Your task to perform on an android device: turn on the 24-hour format for clock Image 0: 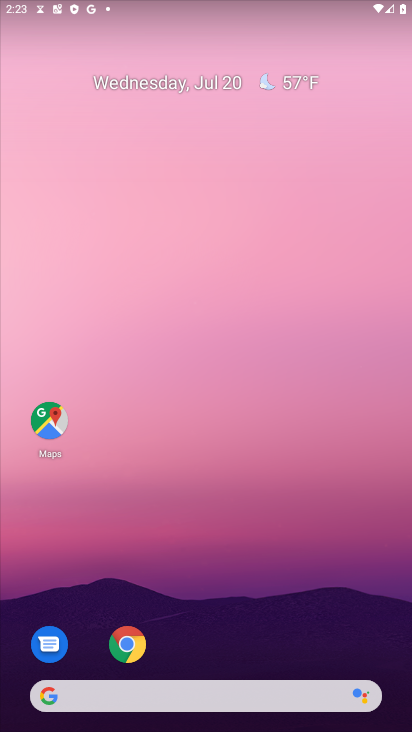
Step 0: press home button
Your task to perform on an android device: turn on the 24-hour format for clock Image 1: 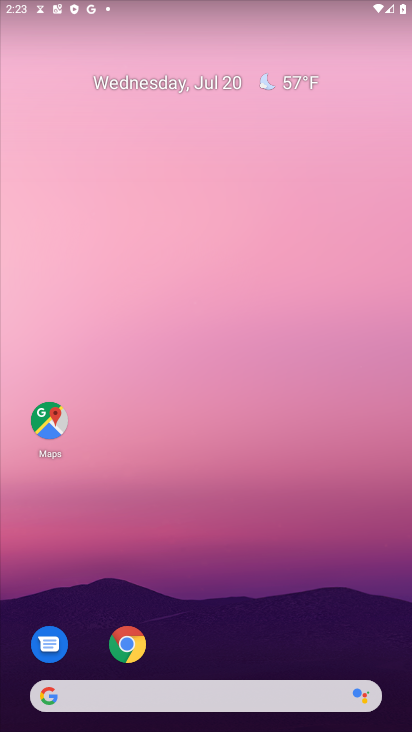
Step 1: drag from (256, 647) to (217, 0)
Your task to perform on an android device: turn on the 24-hour format for clock Image 2: 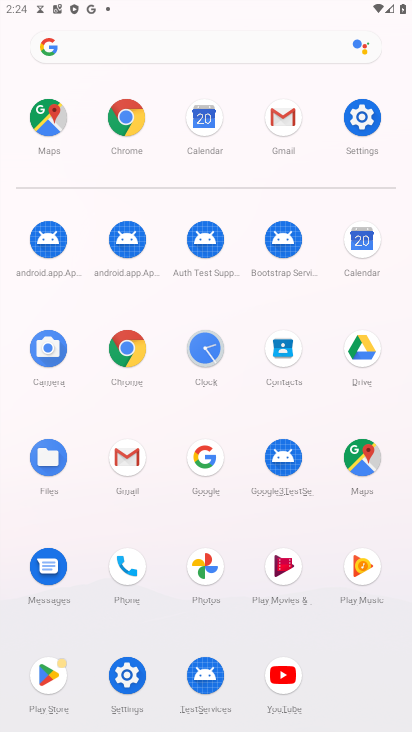
Step 2: click (356, 120)
Your task to perform on an android device: turn on the 24-hour format for clock Image 3: 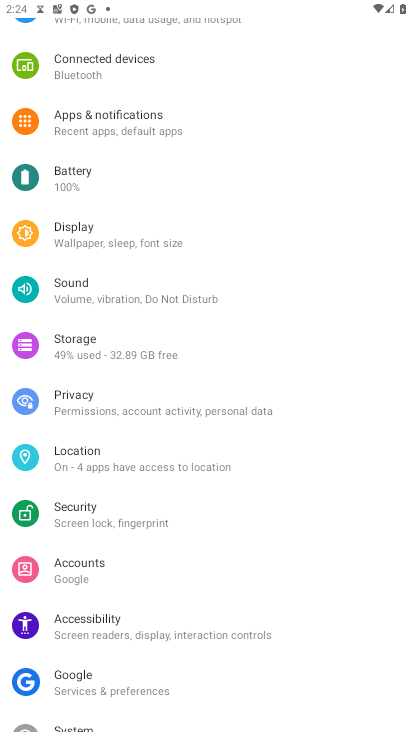
Step 3: drag from (259, 626) to (277, 100)
Your task to perform on an android device: turn on the 24-hour format for clock Image 4: 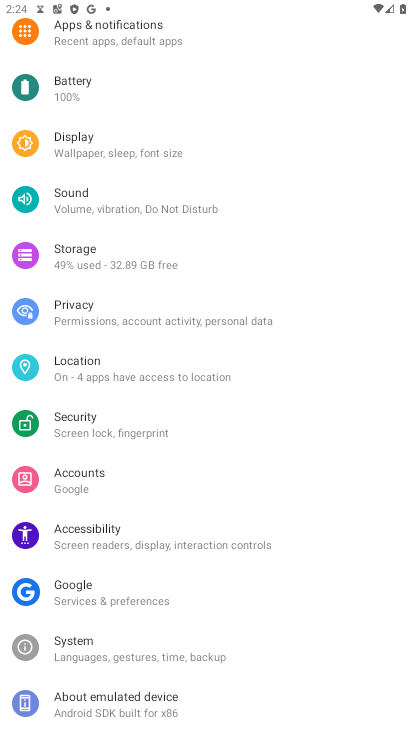
Step 4: click (59, 651)
Your task to perform on an android device: turn on the 24-hour format for clock Image 5: 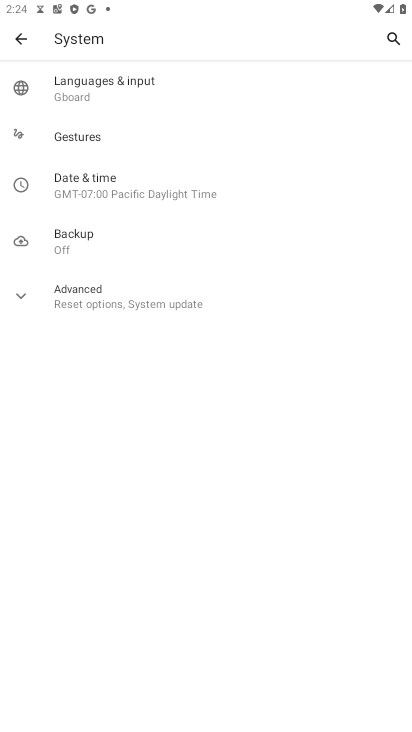
Step 5: click (87, 181)
Your task to perform on an android device: turn on the 24-hour format for clock Image 6: 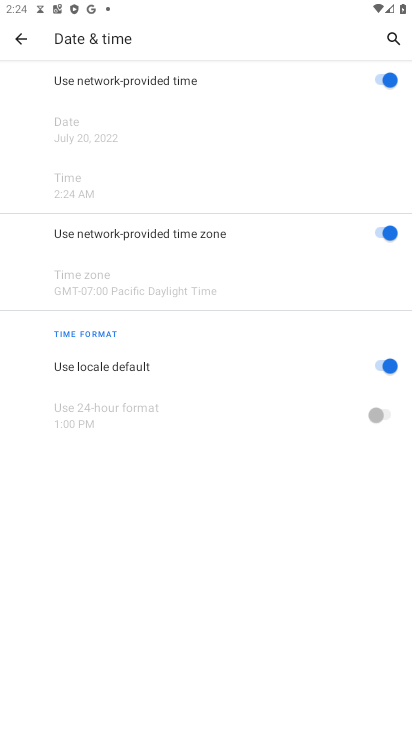
Step 6: click (378, 415)
Your task to perform on an android device: turn on the 24-hour format for clock Image 7: 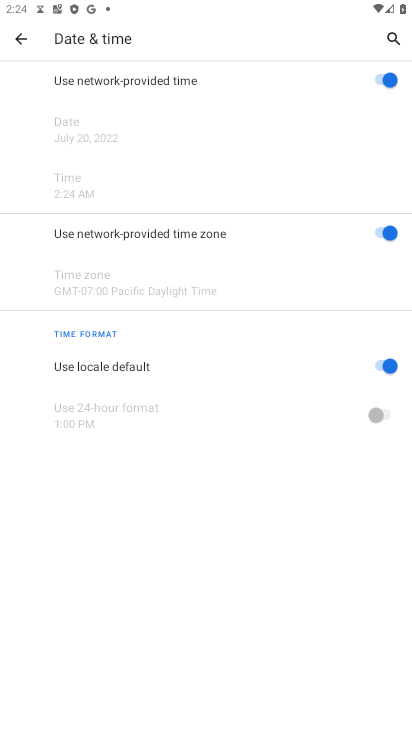
Step 7: click (393, 370)
Your task to perform on an android device: turn on the 24-hour format for clock Image 8: 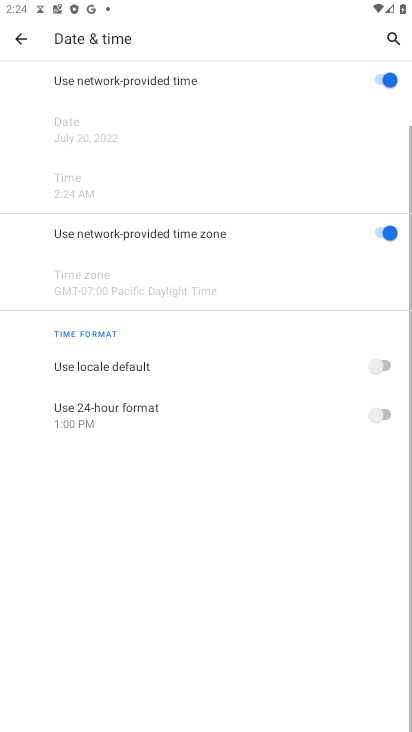
Step 8: click (384, 417)
Your task to perform on an android device: turn on the 24-hour format for clock Image 9: 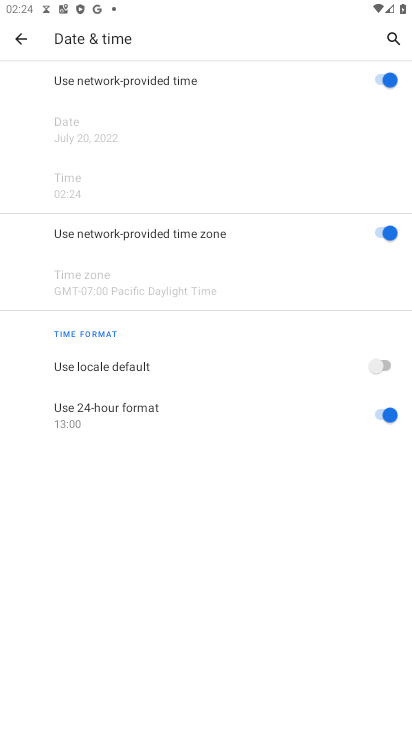
Step 9: task complete